Your task to perform on an android device: turn on sleep mode Image 0: 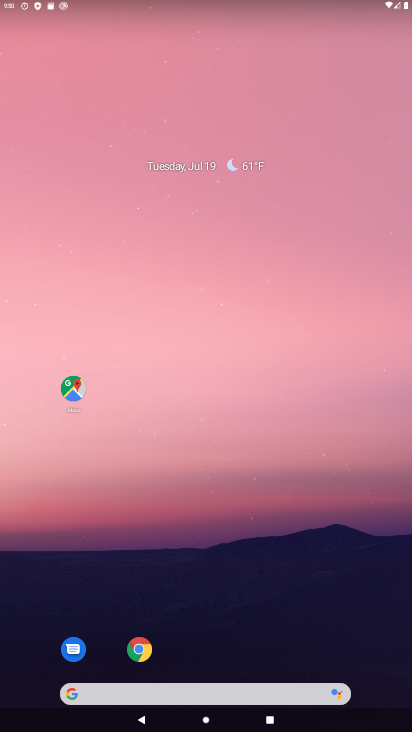
Step 0: drag from (288, 571) to (238, 219)
Your task to perform on an android device: turn on sleep mode Image 1: 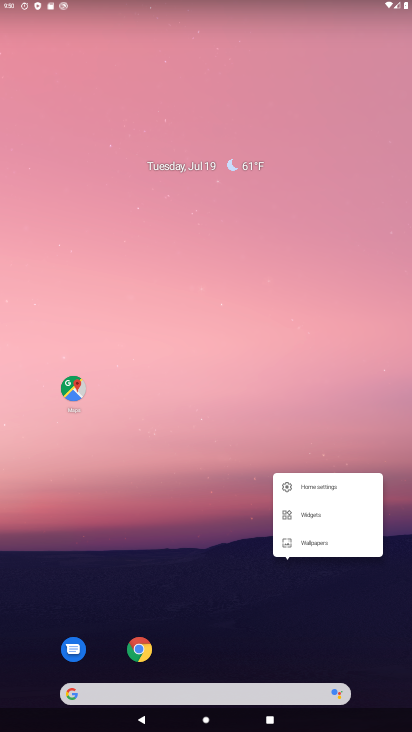
Step 1: click (202, 527)
Your task to perform on an android device: turn on sleep mode Image 2: 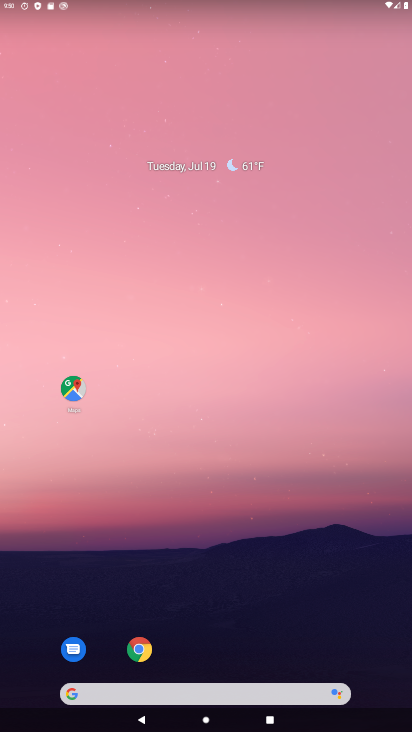
Step 2: click (202, 527)
Your task to perform on an android device: turn on sleep mode Image 3: 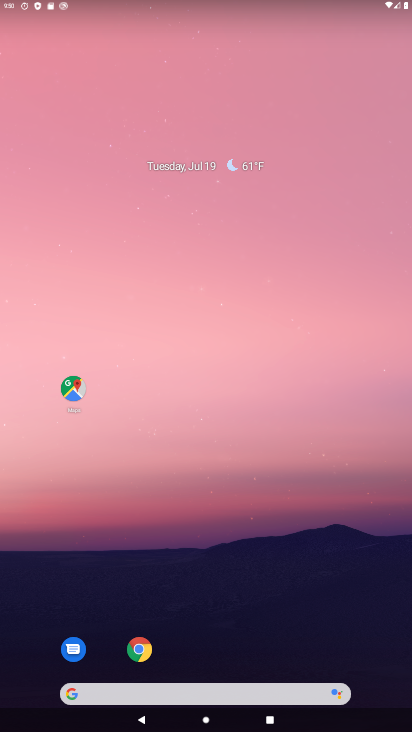
Step 3: drag from (227, 10) to (259, 485)
Your task to perform on an android device: turn on sleep mode Image 4: 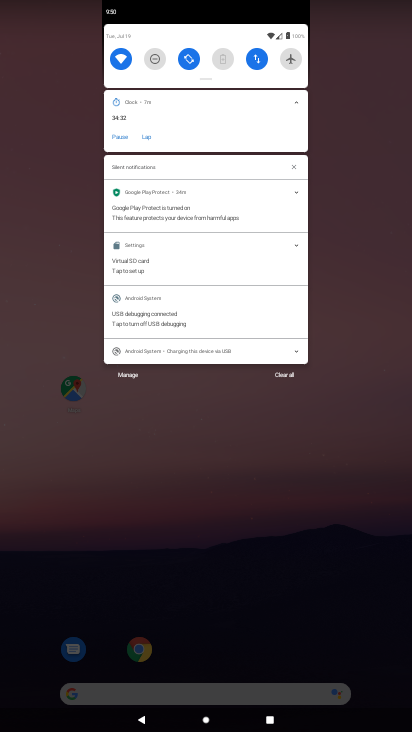
Step 4: drag from (227, 74) to (233, 528)
Your task to perform on an android device: turn on sleep mode Image 5: 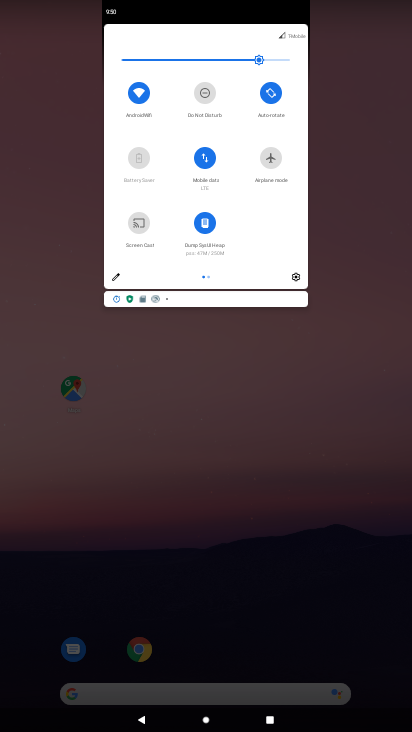
Step 5: click (117, 276)
Your task to perform on an android device: turn on sleep mode Image 6: 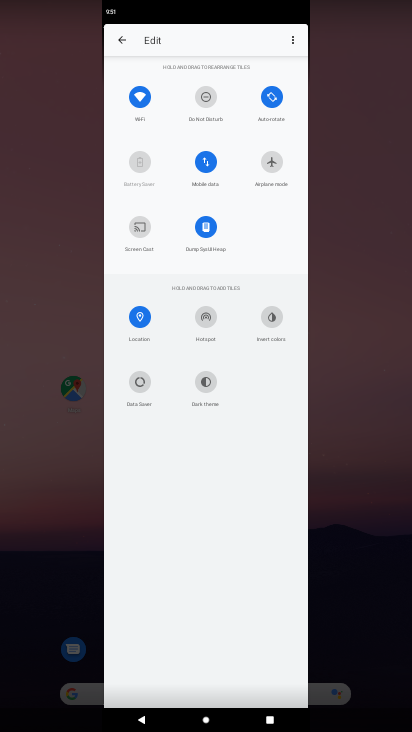
Step 6: task complete